Your task to perform on an android device: Do I have any events this weekend? Image 0: 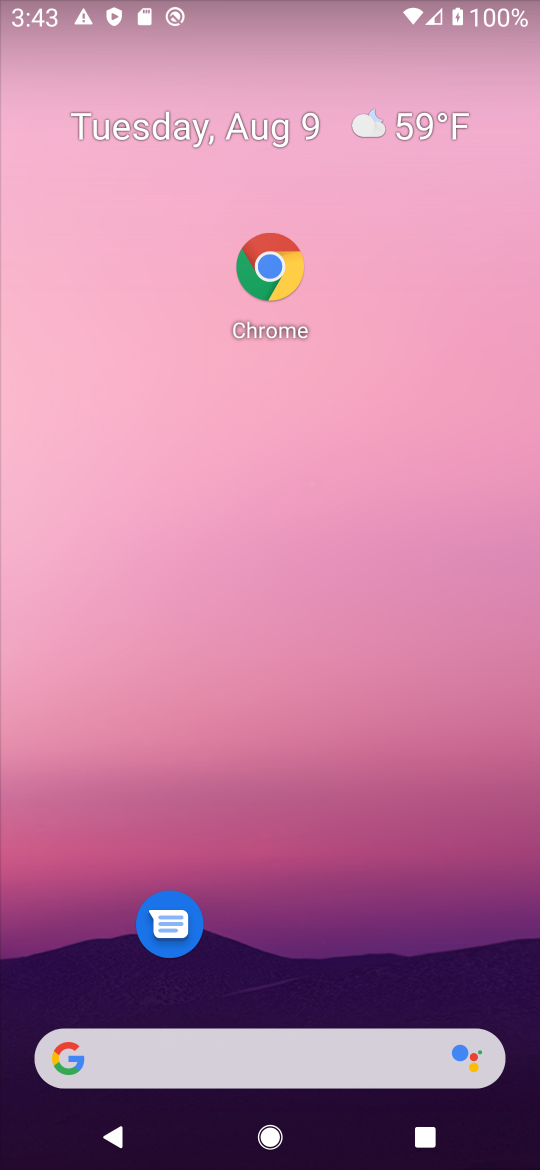
Step 0: drag from (328, 1000) to (307, 201)
Your task to perform on an android device: Do I have any events this weekend? Image 1: 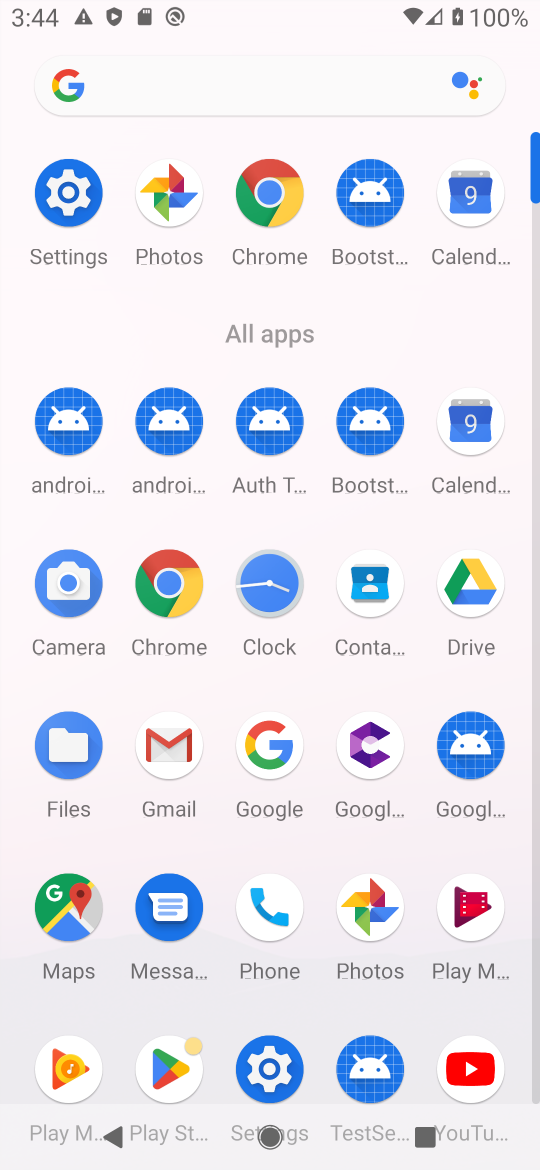
Step 1: click (474, 435)
Your task to perform on an android device: Do I have any events this weekend? Image 2: 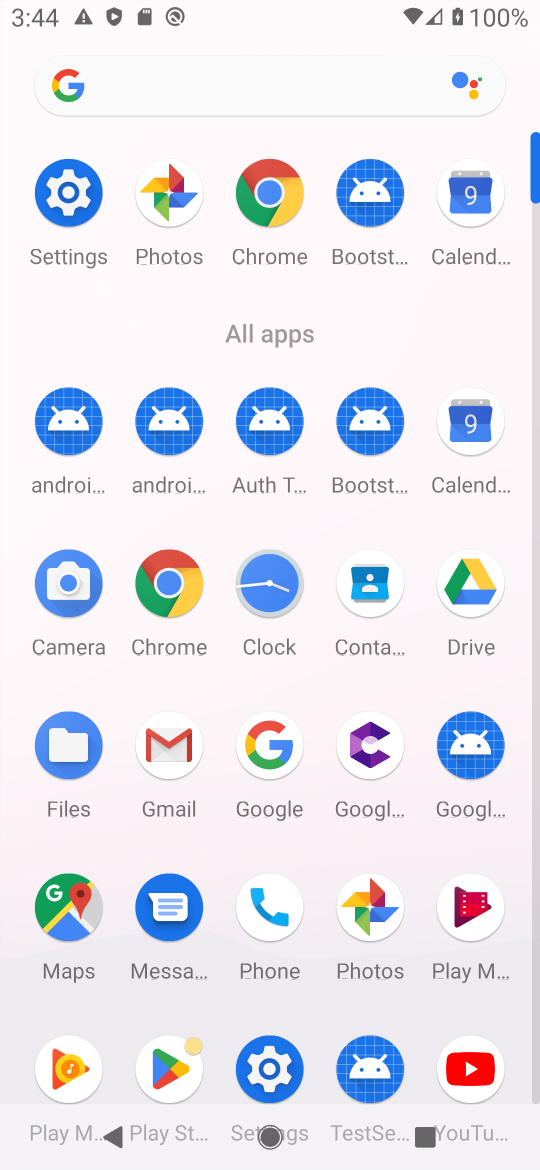
Step 2: click (475, 435)
Your task to perform on an android device: Do I have any events this weekend? Image 3: 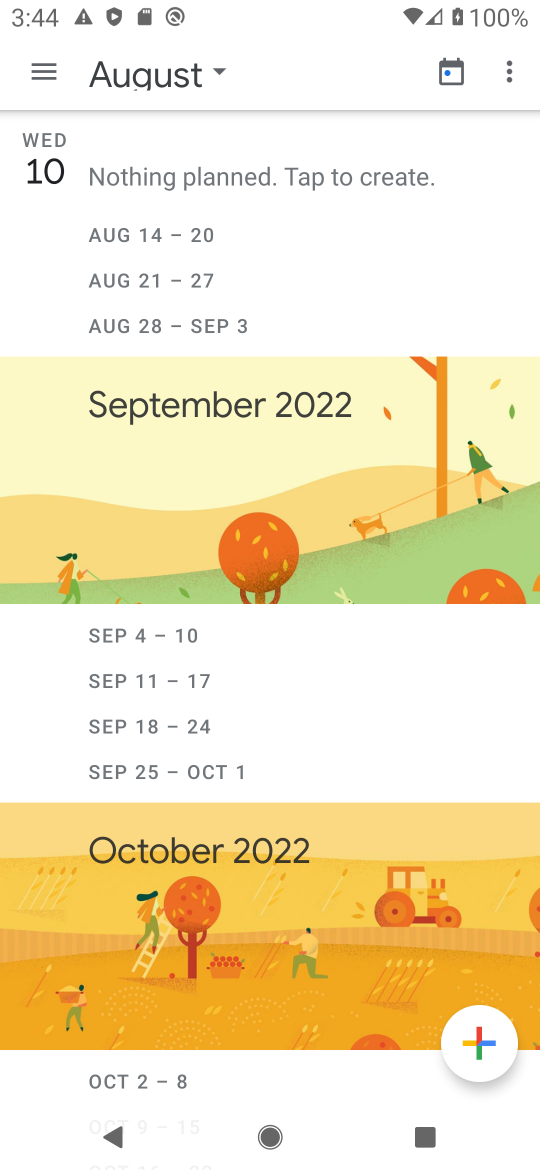
Step 3: click (185, 50)
Your task to perform on an android device: Do I have any events this weekend? Image 4: 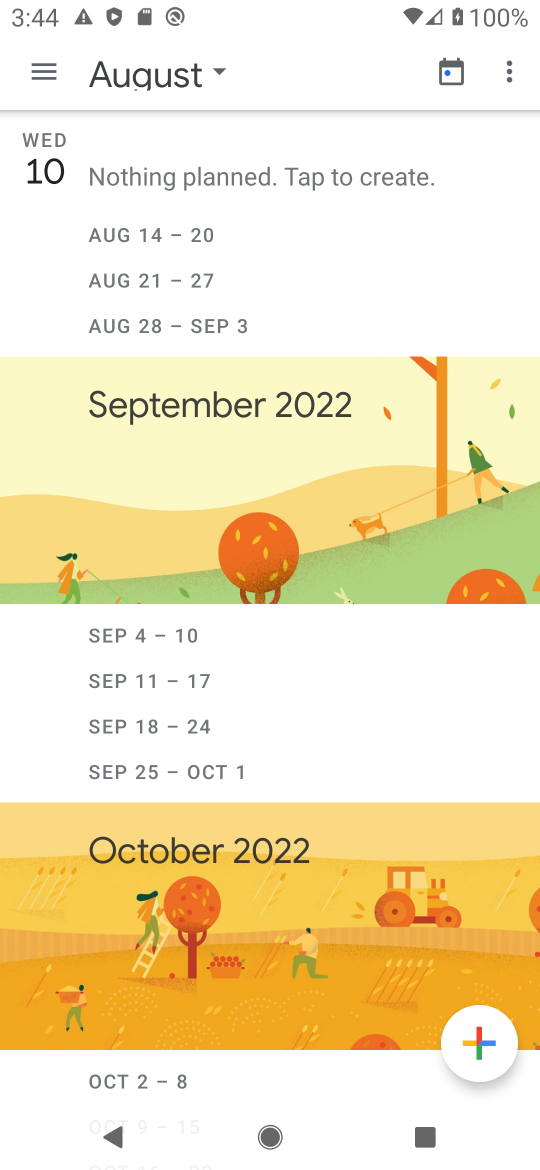
Step 4: click (206, 62)
Your task to perform on an android device: Do I have any events this weekend? Image 5: 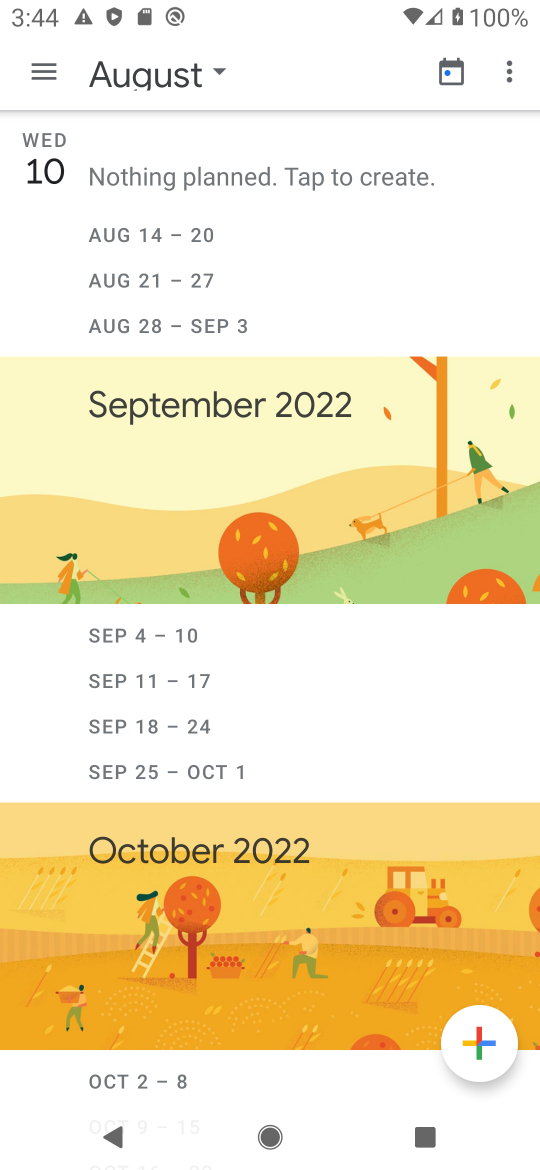
Step 5: click (220, 62)
Your task to perform on an android device: Do I have any events this weekend? Image 6: 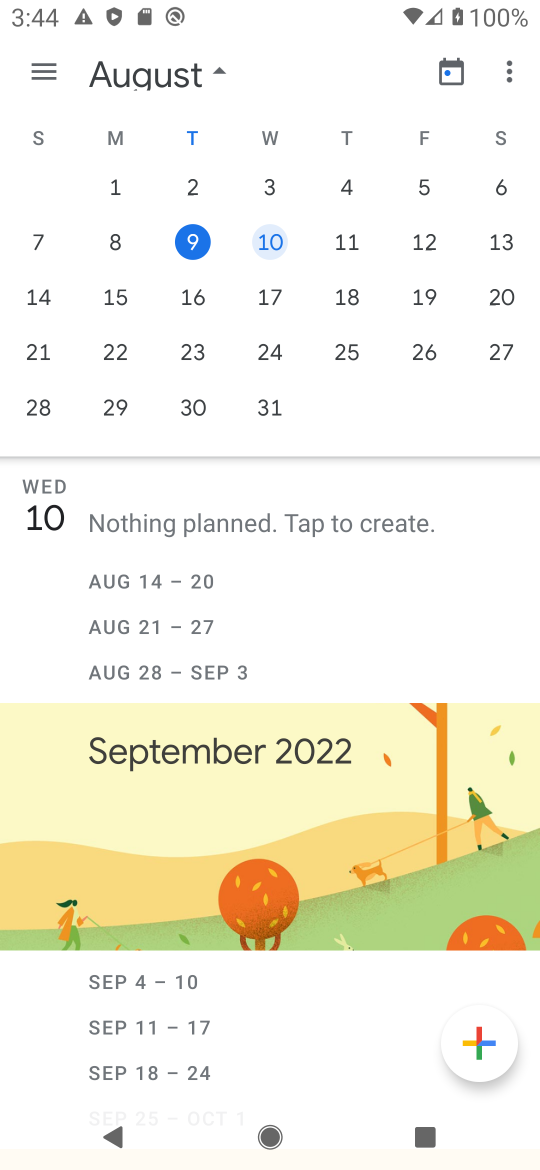
Step 6: click (480, 238)
Your task to perform on an android device: Do I have any events this weekend? Image 7: 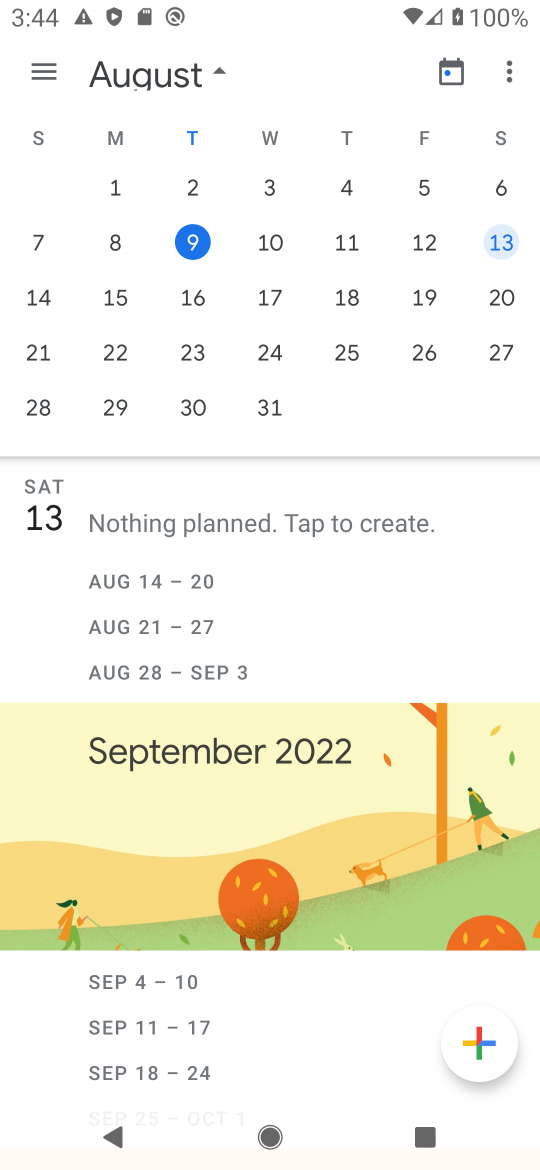
Step 7: task complete